Your task to perform on an android device: Open ESPN.com Image 0: 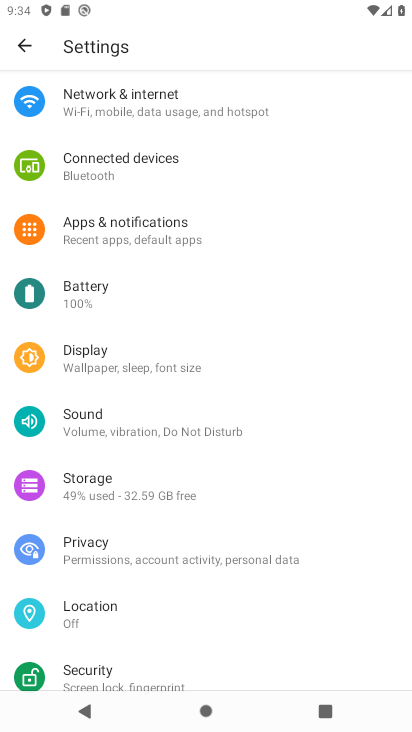
Step 0: press home button
Your task to perform on an android device: Open ESPN.com Image 1: 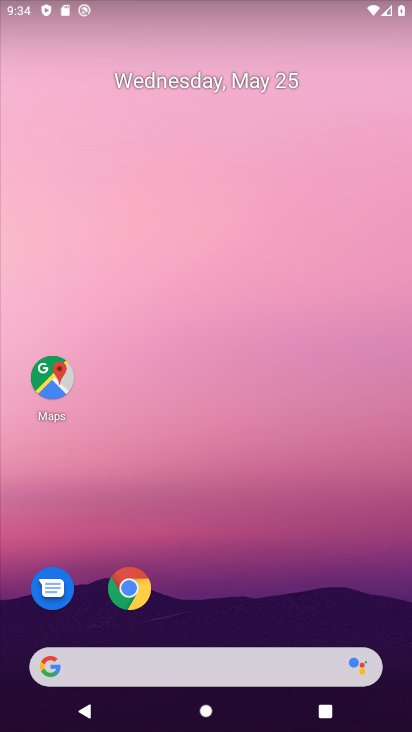
Step 1: click (128, 582)
Your task to perform on an android device: Open ESPN.com Image 2: 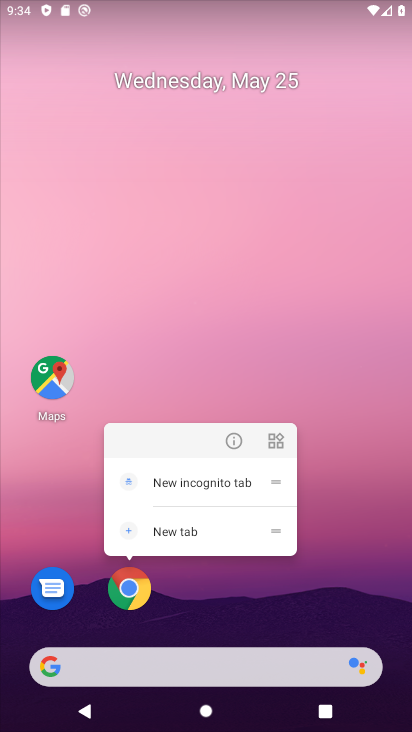
Step 2: click (130, 582)
Your task to perform on an android device: Open ESPN.com Image 3: 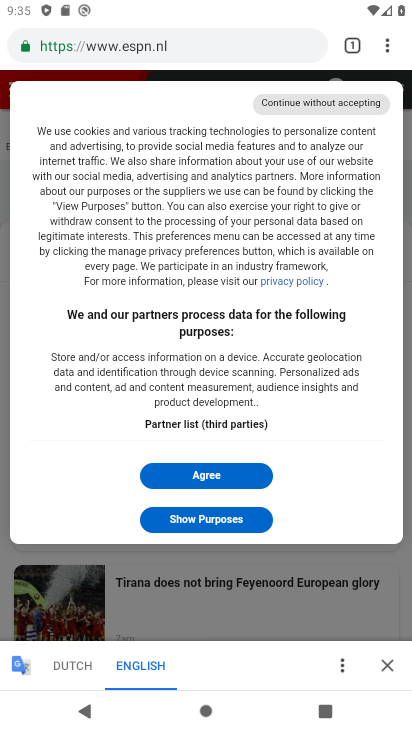
Step 3: task complete